Your task to perform on an android device: Play the last video I watched on Youtube Image 0: 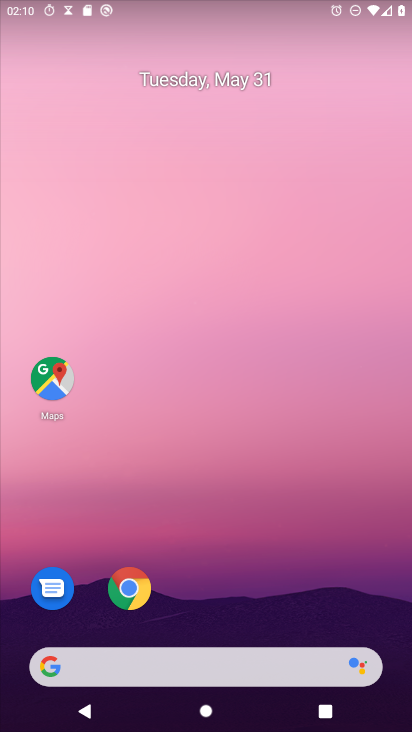
Step 0: drag from (178, 663) to (207, 38)
Your task to perform on an android device: Play the last video I watched on Youtube Image 1: 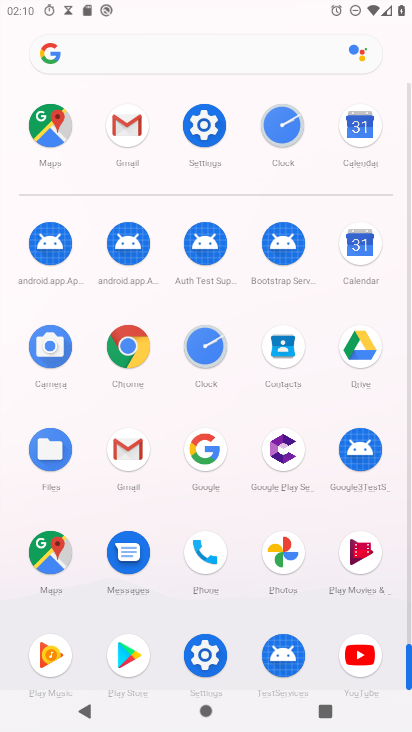
Step 1: click (367, 652)
Your task to perform on an android device: Play the last video I watched on Youtube Image 2: 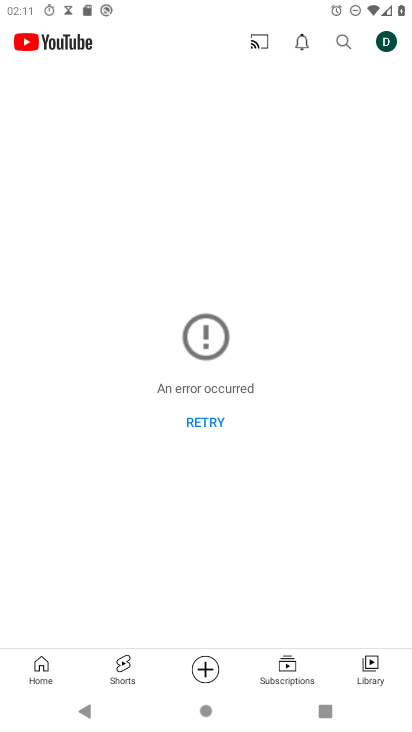
Step 2: click (368, 645)
Your task to perform on an android device: Play the last video I watched on Youtube Image 3: 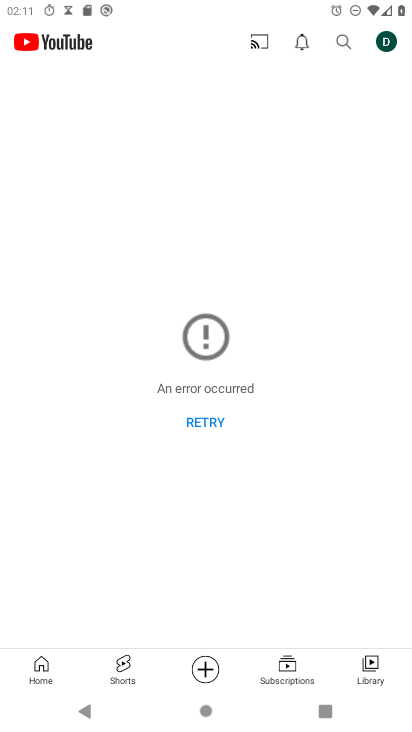
Step 3: click (365, 671)
Your task to perform on an android device: Play the last video I watched on Youtube Image 4: 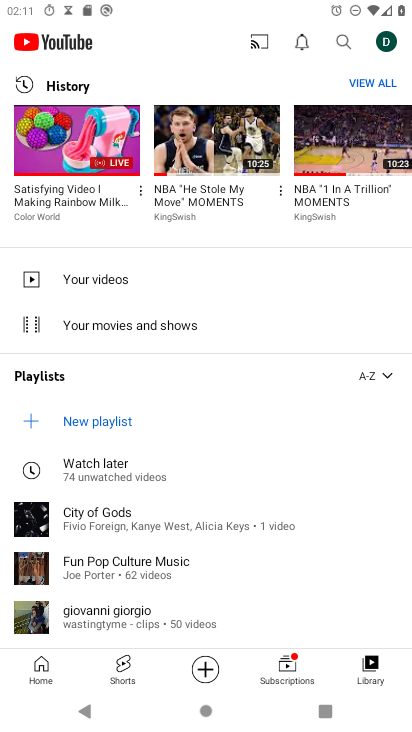
Step 4: click (90, 140)
Your task to perform on an android device: Play the last video I watched on Youtube Image 5: 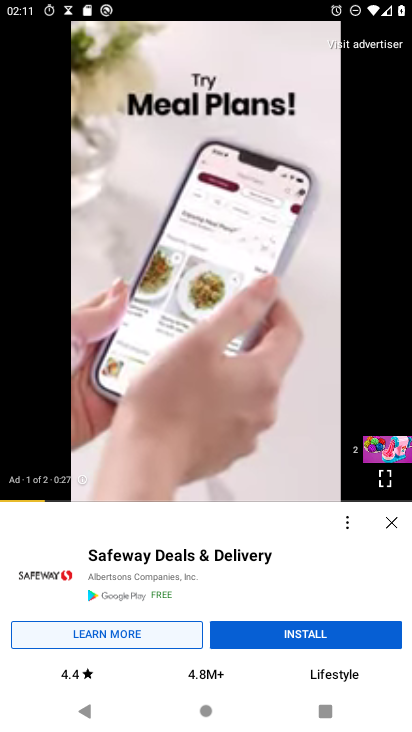
Step 5: task complete